Your task to perform on an android device: open chrome and create a bookmark for the current page Image 0: 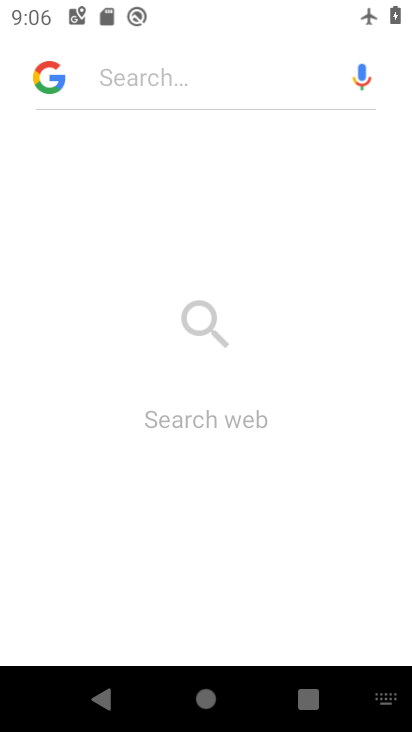
Step 0: press home button
Your task to perform on an android device: open chrome and create a bookmark for the current page Image 1: 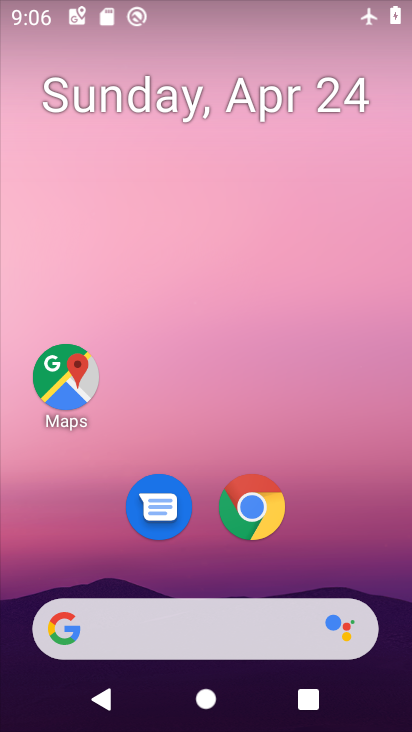
Step 1: click (273, 498)
Your task to perform on an android device: open chrome and create a bookmark for the current page Image 2: 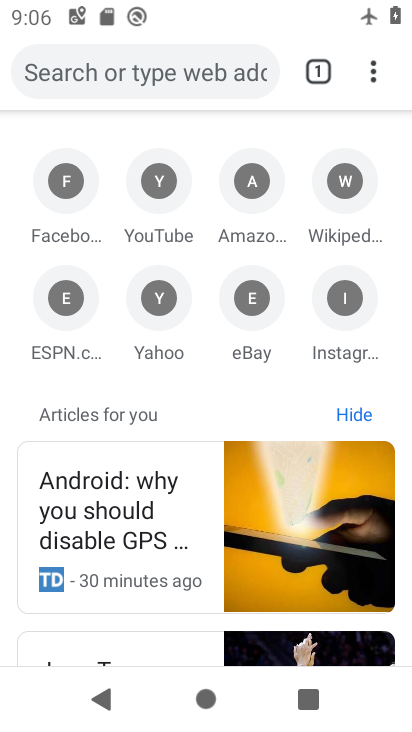
Step 2: click (376, 87)
Your task to perform on an android device: open chrome and create a bookmark for the current page Image 3: 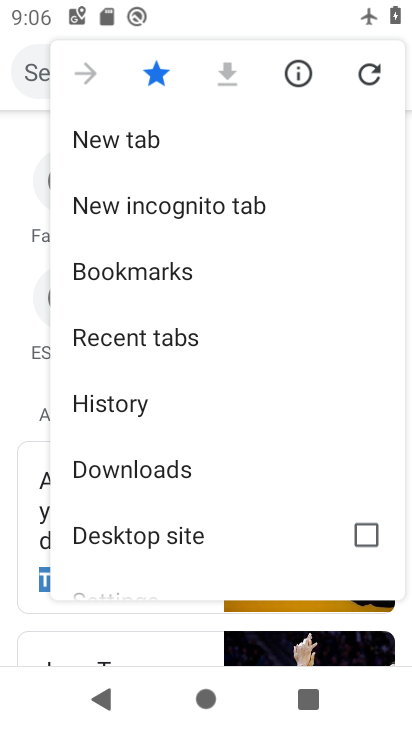
Step 3: task complete